Your task to perform on an android device: see sites visited before in the chrome app Image 0: 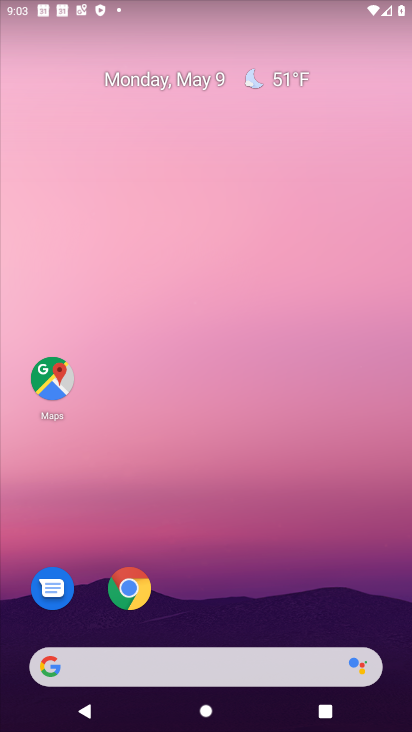
Step 0: drag from (249, 562) to (243, 26)
Your task to perform on an android device: see sites visited before in the chrome app Image 1: 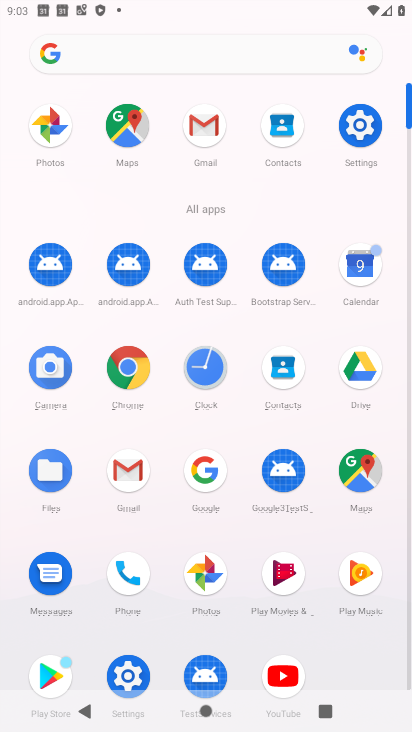
Step 1: click (136, 372)
Your task to perform on an android device: see sites visited before in the chrome app Image 2: 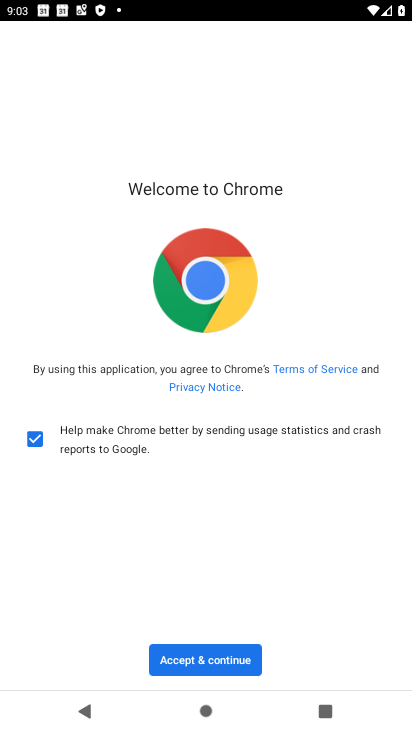
Step 2: click (214, 660)
Your task to perform on an android device: see sites visited before in the chrome app Image 3: 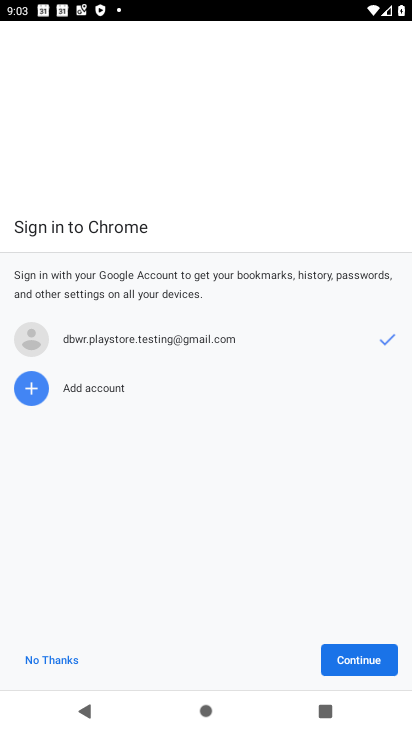
Step 3: click (338, 668)
Your task to perform on an android device: see sites visited before in the chrome app Image 4: 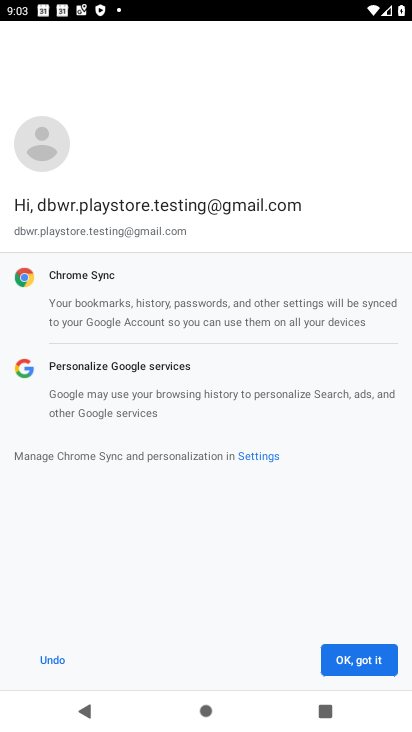
Step 4: click (341, 658)
Your task to perform on an android device: see sites visited before in the chrome app Image 5: 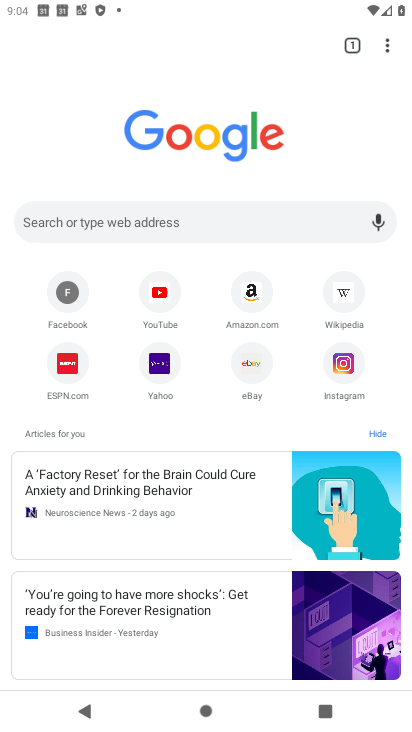
Step 5: click (386, 55)
Your task to perform on an android device: see sites visited before in the chrome app Image 6: 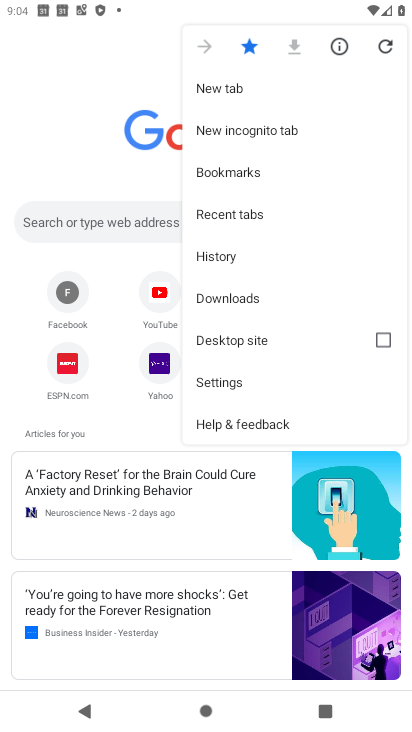
Step 6: click (238, 255)
Your task to perform on an android device: see sites visited before in the chrome app Image 7: 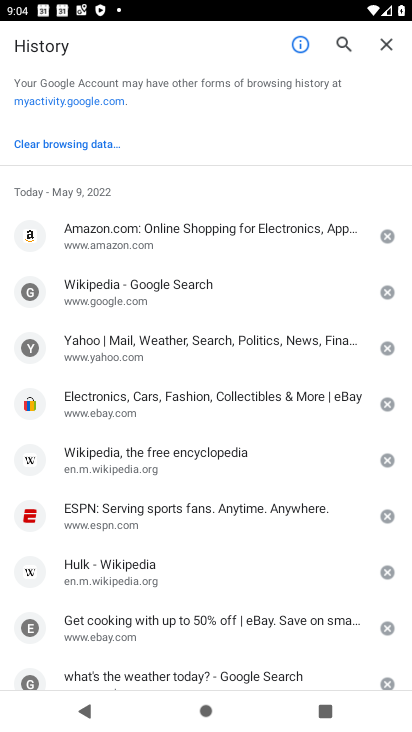
Step 7: task complete